Your task to perform on an android device: turn notification dots on Image 0: 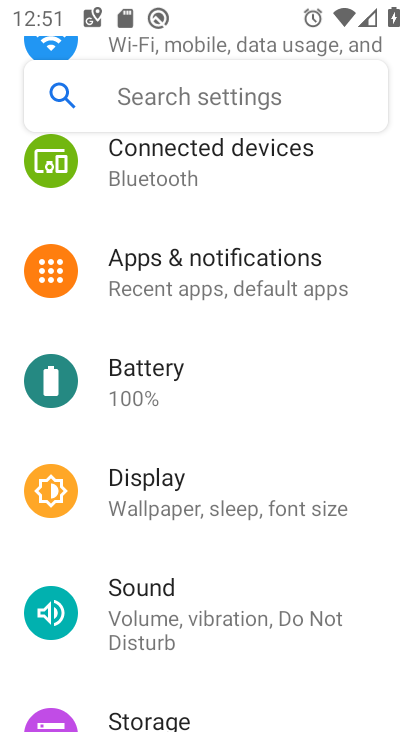
Step 0: click (276, 262)
Your task to perform on an android device: turn notification dots on Image 1: 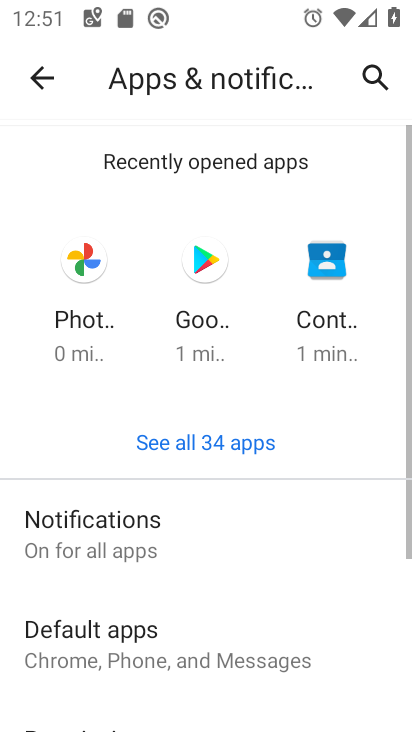
Step 1: click (211, 544)
Your task to perform on an android device: turn notification dots on Image 2: 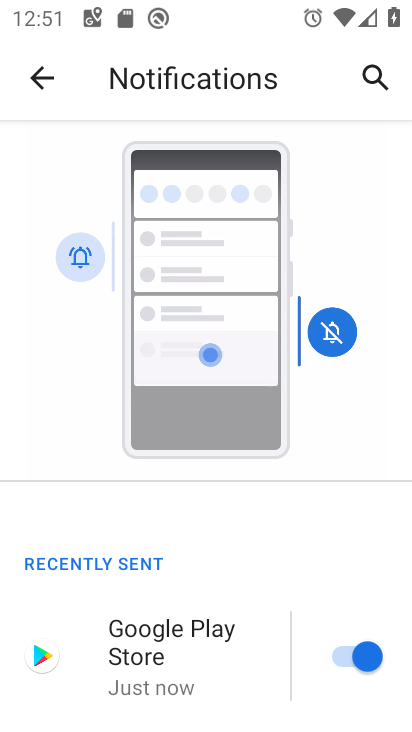
Step 2: drag from (253, 697) to (216, 131)
Your task to perform on an android device: turn notification dots on Image 3: 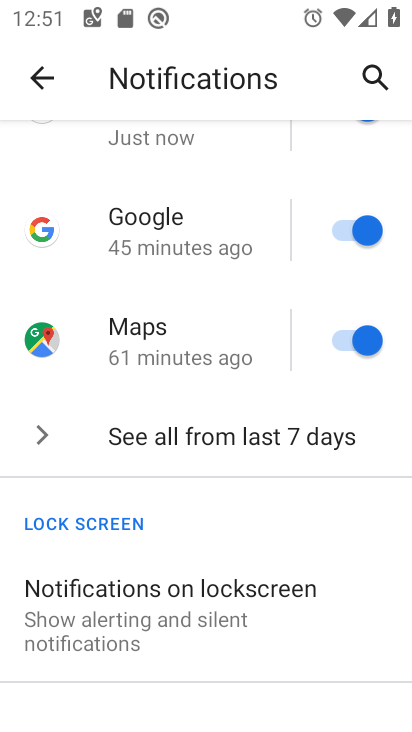
Step 3: drag from (266, 567) to (231, 244)
Your task to perform on an android device: turn notification dots on Image 4: 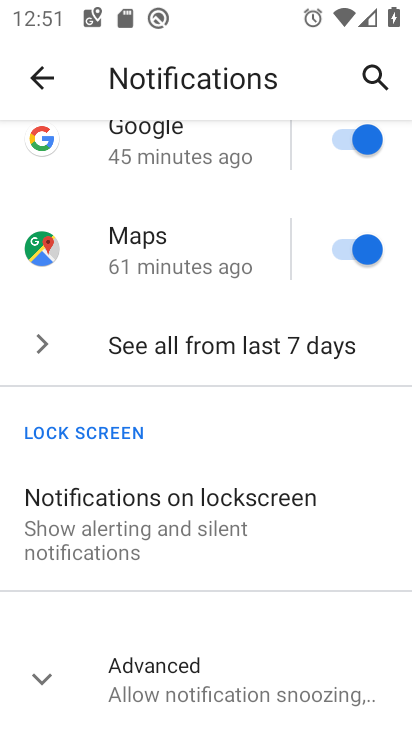
Step 4: click (263, 651)
Your task to perform on an android device: turn notification dots on Image 5: 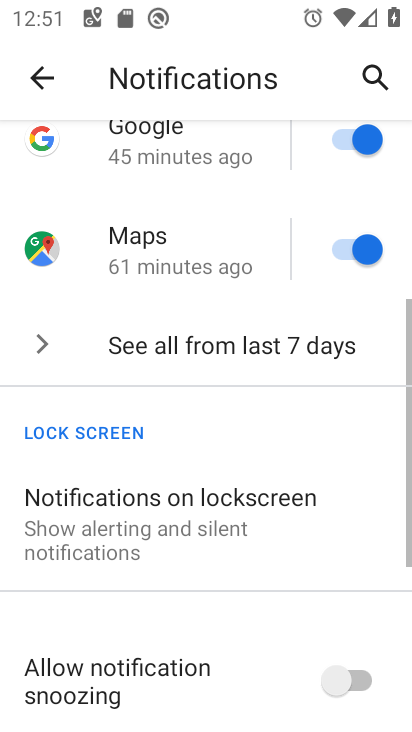
Step 5: task complete